Your task to perform on an android device: turn off airplane mode Image 0: 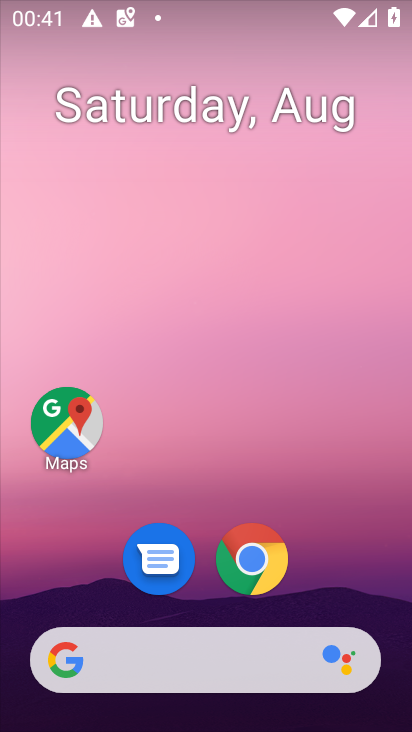
Step 0: drag from (389, 624) to (263, 48)
Your task to perform on an android device: turn off airplane mode Image 1: 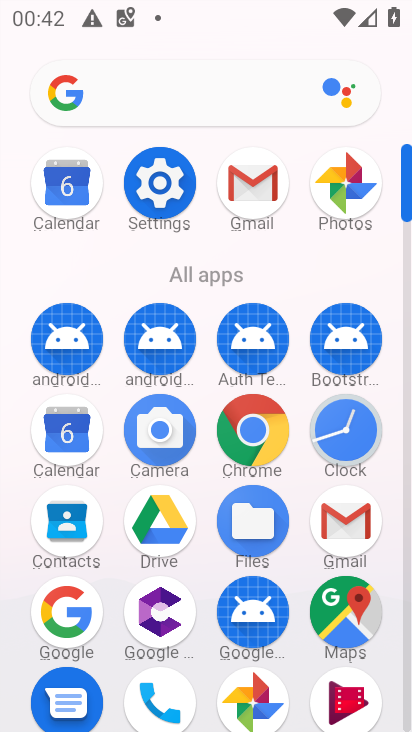
Step 1: click (173, 177)
Your task to perform on an android device: turn off airplane mode Image 2: 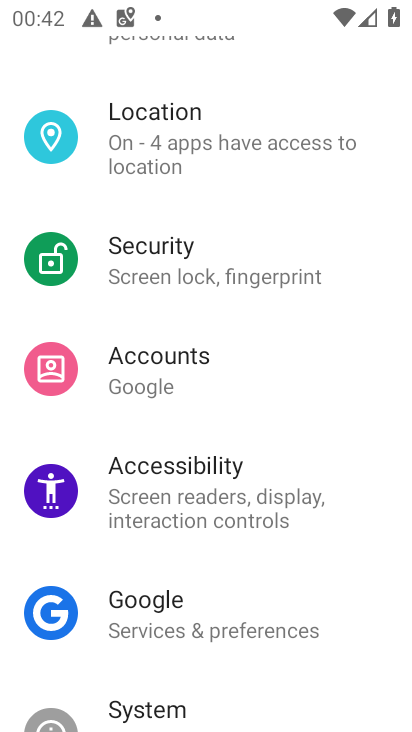
Step 2: drag from (291, 213) to (239, 692)
Your task to perform on an android device: turn off airplane mode Image 3: 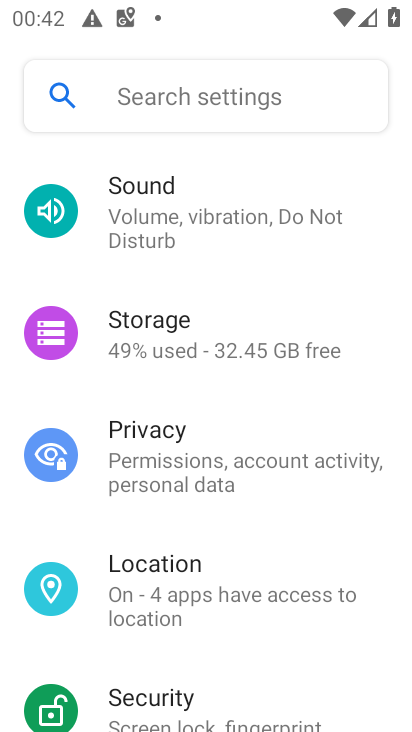
Step 3: drag from (231, 270) to (226, 718)
Your task to perform on an android device: turn off airplane mode Image 4: 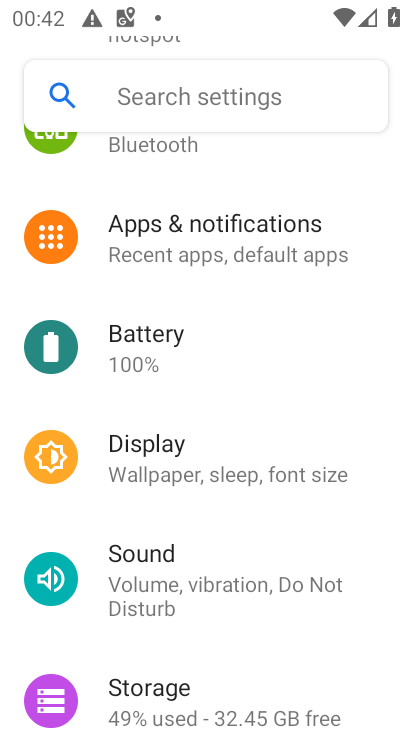
Step 4: drag from (254, 307) to (252, 707)
Your task to perform on an android device: turn off airplane mode Image 5: 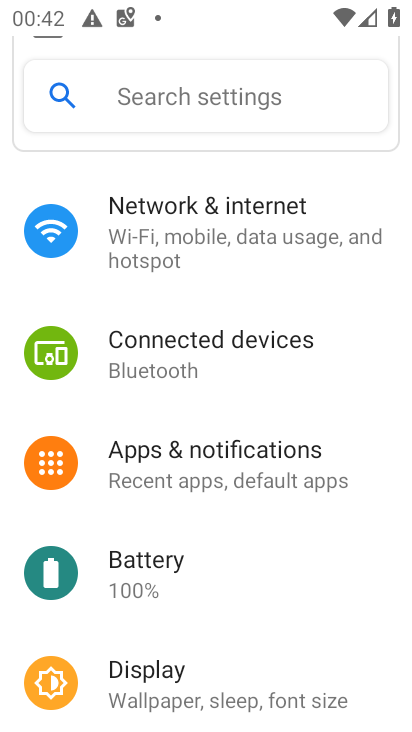
Step 5: click (287, 223)
Your task to perform on an android device: turn off airplane mode Image 6: 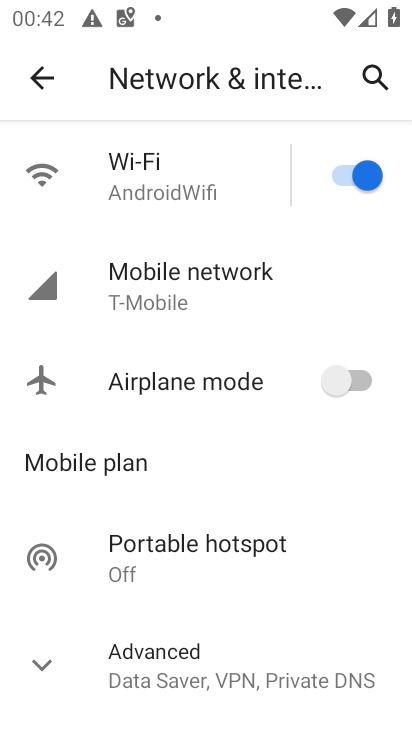
Step 6: task complete